Your task to perform on an android device: turn off wifi Image 0: 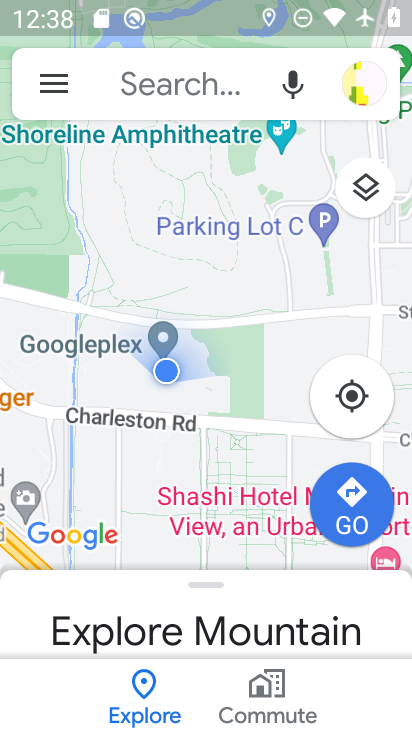
Step 0: press home button
Your task to perform on an android device: turn off wifi Image 1: 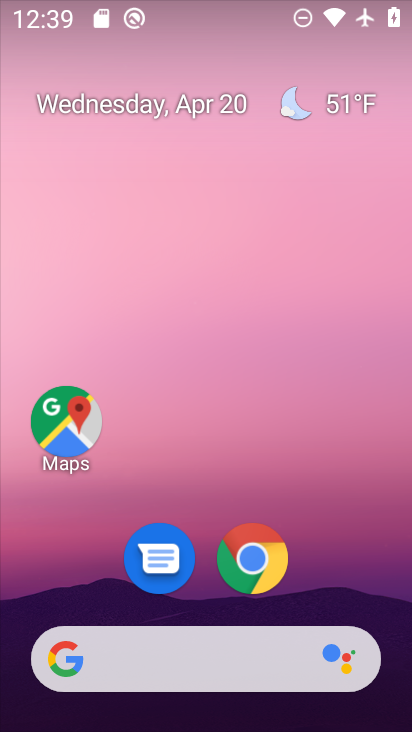
Step 1: drag from (338, 588) to (269, 117)
Your task to perform on an android device: turn off wifi Image 2: 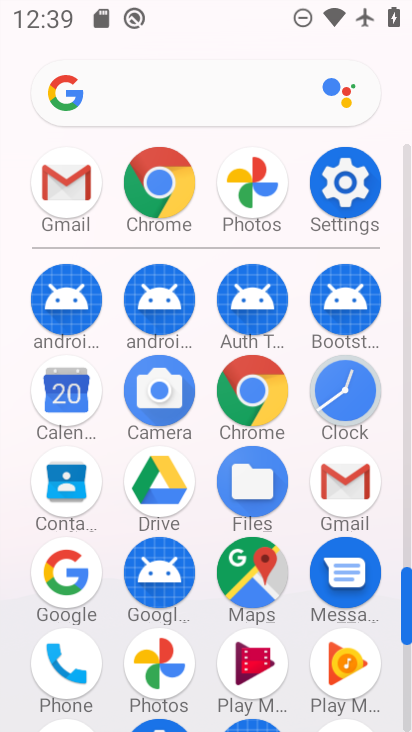
Step 2: click (407, 696)
Your task to perform on an android device: turn off wifi Image 3: 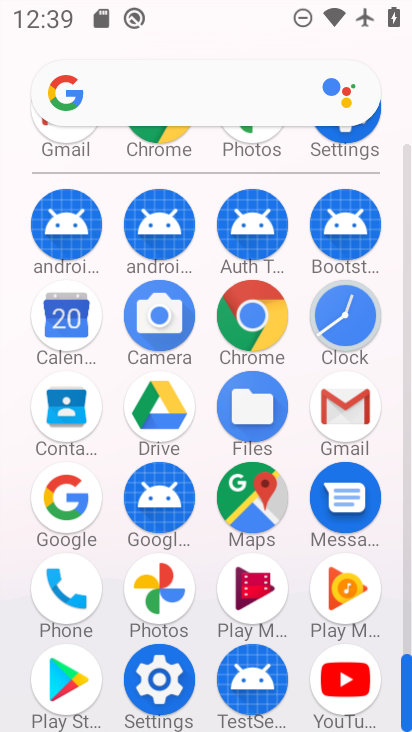
Step 3: click (158, 684)
Your task to perform on an android device: turn off wifi Image 4: 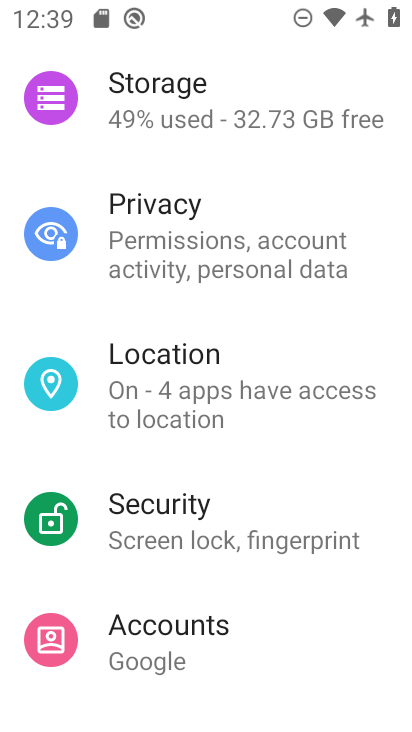
Step 4: drag from (372, 212) to (385, 473)
Your task to perform on an android device: turn off wifi Image 5: 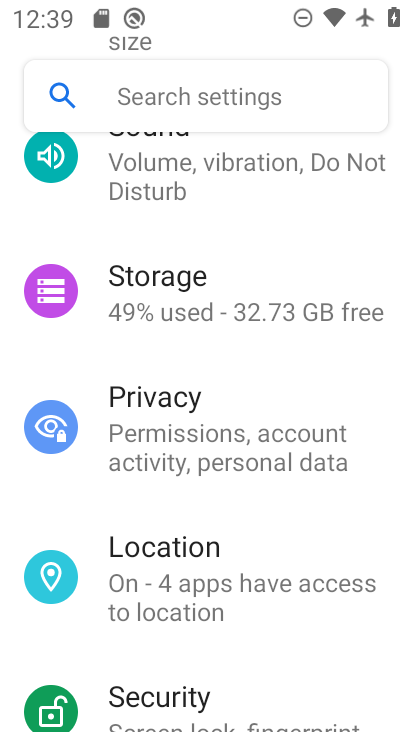
Step 5: drag from (380, 275) to (364, 449)
Your task to perform on an android device: turn off wifi Image 6: 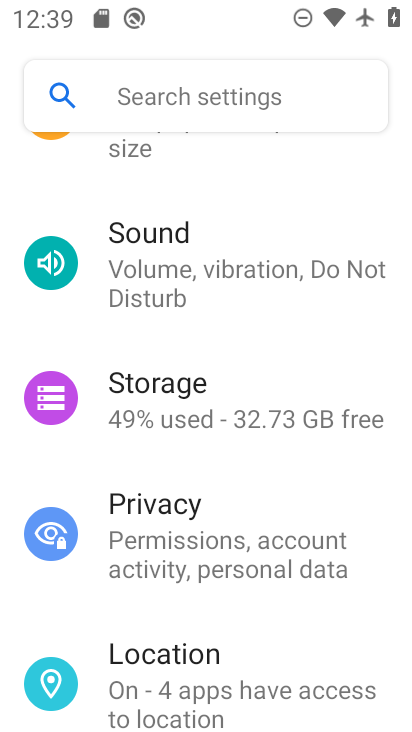
Step 6: drag from (354, 237) to (329, 534)
Your task to perform on an android device: turn off wifi Image 7: 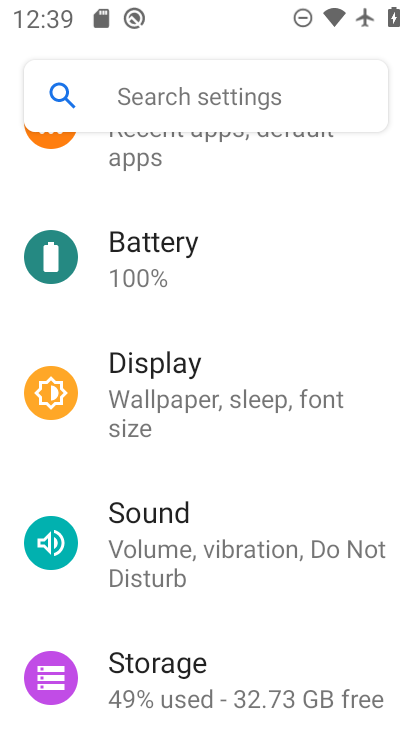
Step 7: drag from (370, 285) to (350, 538)
Your task to perform on an android device: turn off wifi Image 8: 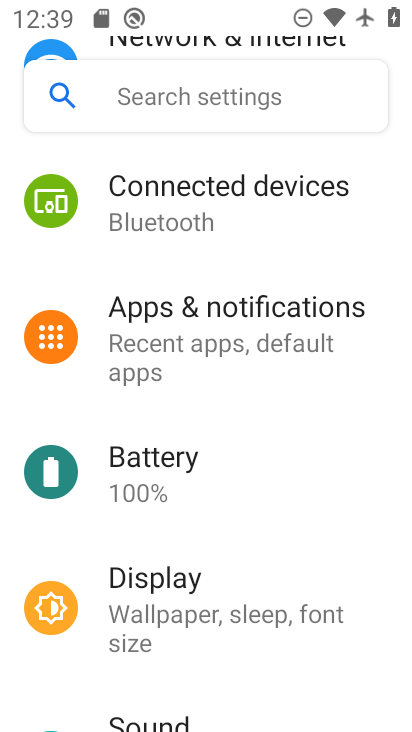
Step 8: drag from (373, 257) to (342, 484)
Your task to perform on an android device: turn off wifi Image 9: 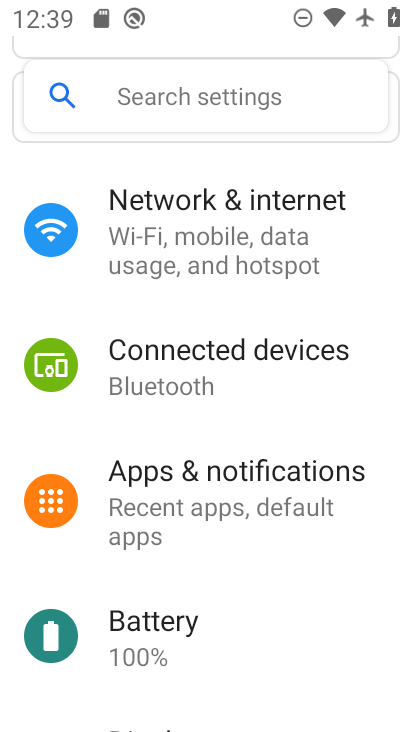
Step 9: click (162, 229)
Your task to perform on an android device: turn off wifi Image 10: 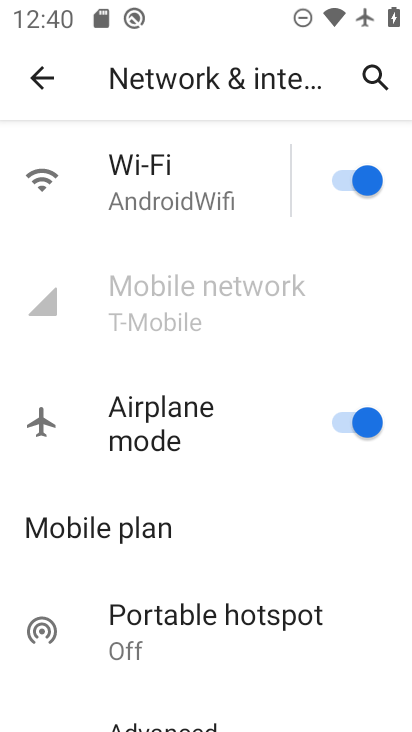
Step 10: click (336, 176)
Your task to perform on an android device: turn off wifi Image 11: 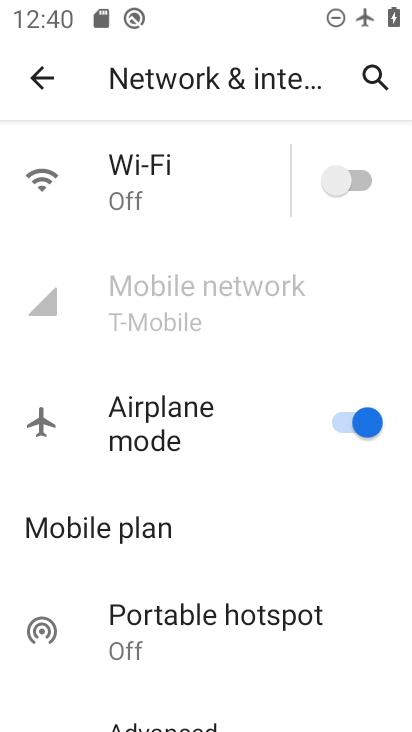
Step 11: task complete